Your task to perform on an android device: Open Youtube and go to the subscriptions tab Image 0: 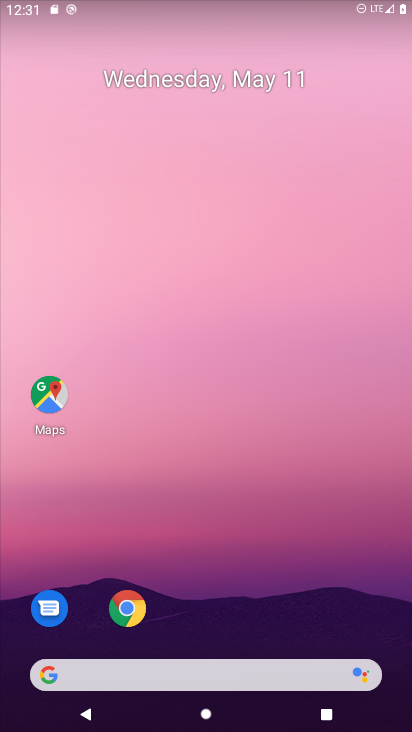
Step 0: drag from (222, 507) to (267, 56)
Your task to perform on an android device: Open Youtube and go to the subscriptions tab Image 1: 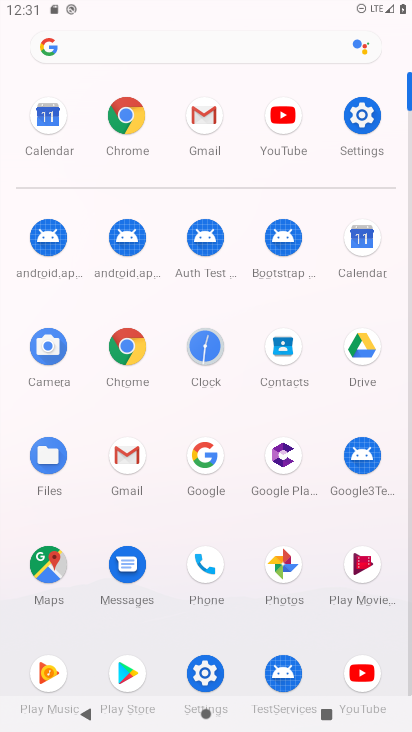
Step 1: click (277, 119)
Your task to perform on an android device: Open Youtube and go to the subscriptions tab Image 2: 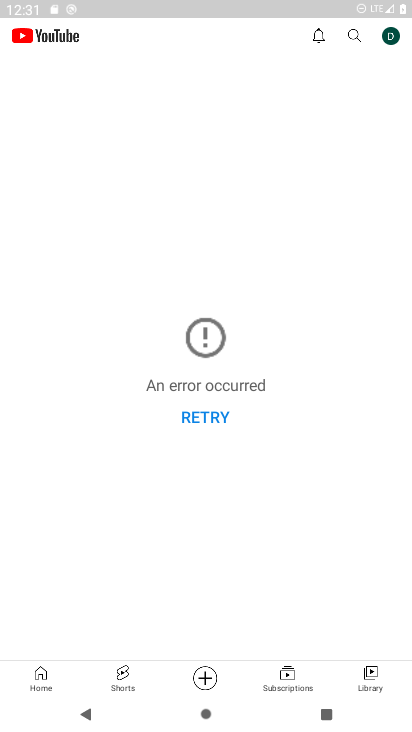
Step 2: click (283, 668)
Your task to perform on an android device: Open Youtube and go to the subscriptions tab Image 3: 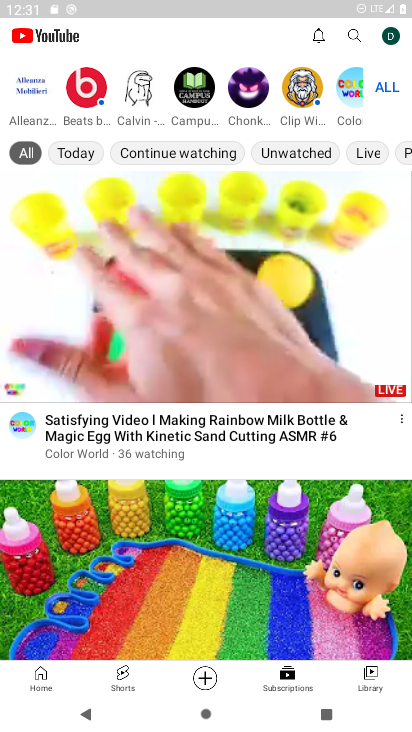
Step 3: task complete